Your task to perform on an android device: toggle priority inbox in the gmail app Image 0: 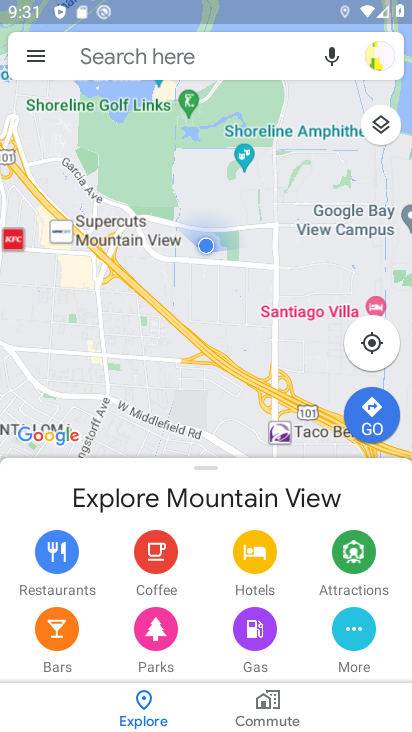
Step 0: press home button
Your task to perform on an android device: toggle priority inbox in the gmail app Image 1: 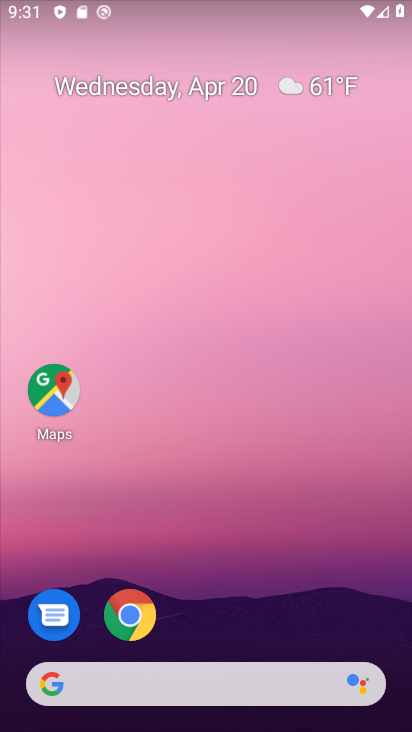
Step 1: drag from (269, 388) to (279, 50)
Your task to perform on an android device: toggle priority inbox in the gmail app Image 2: 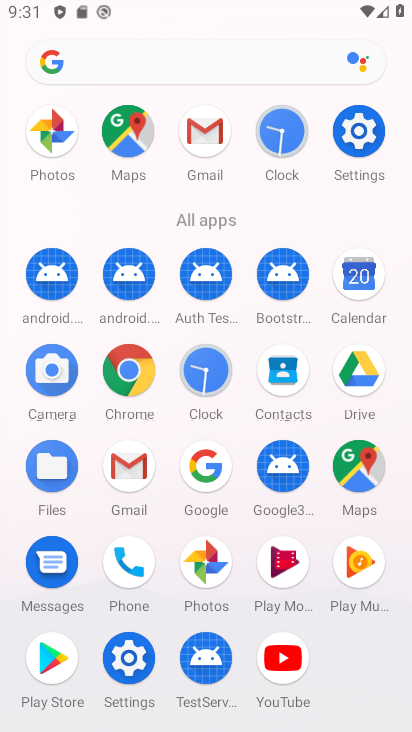
Step 2: click (189, 113)
Your task to perform on an android device: toggle priority inbox in the gmail app Image 3: 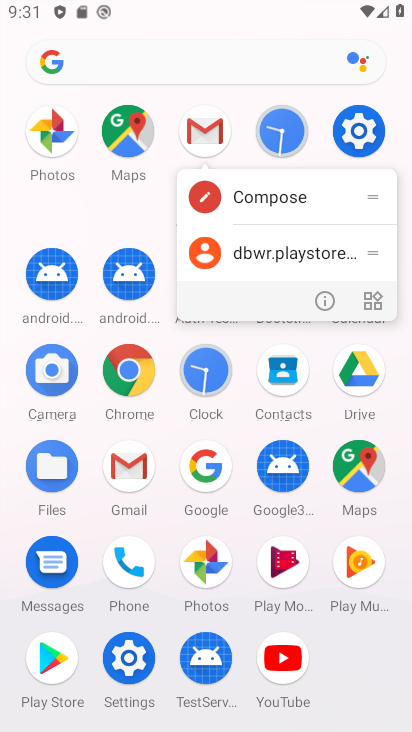
Step 3: click (210, 142)
Your task to perform on an android device: toggle priority inbox in the gmail app Image 4: 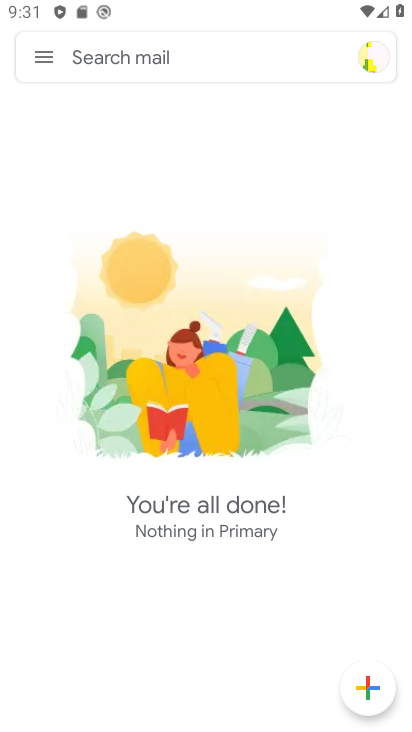
Step 4: click (35, 54)
Your task to perform on an android device: toggle priority inbox in the gmail app Image 5: 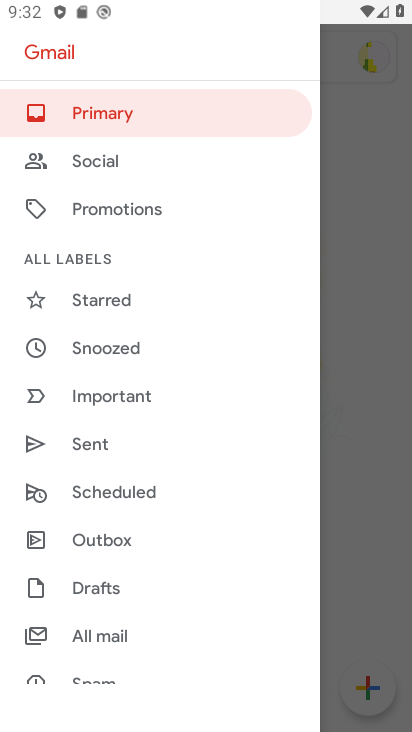
Step 5: drag from (165, 533) to (175, 239)
Your task to perform on an android device: toggle priority inbox in the gmail app Image 6: 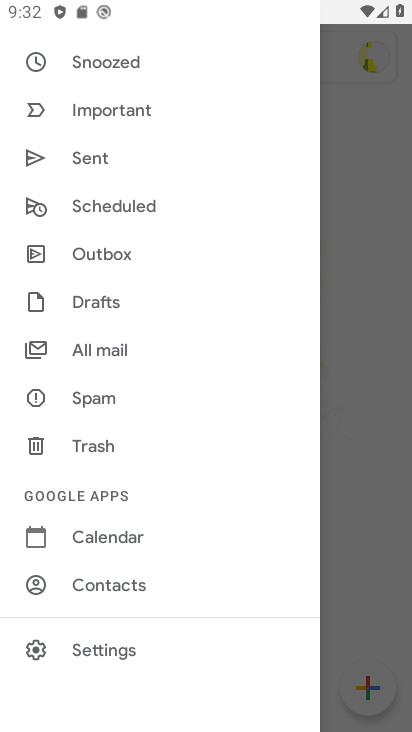
Step 6: click (104, 649)
Your task to perform on an android device: toggle priority inbox in the gmail app Image 7: 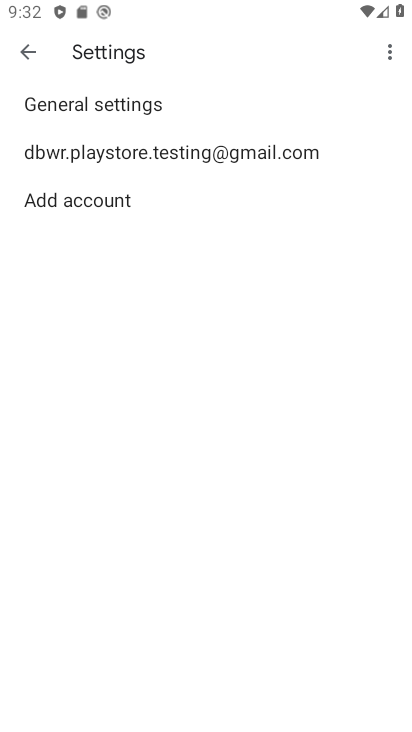
Step 7: click (228, 157)
Your task to perform on an android device: toggle priority inbox in the gmail app Image 8: 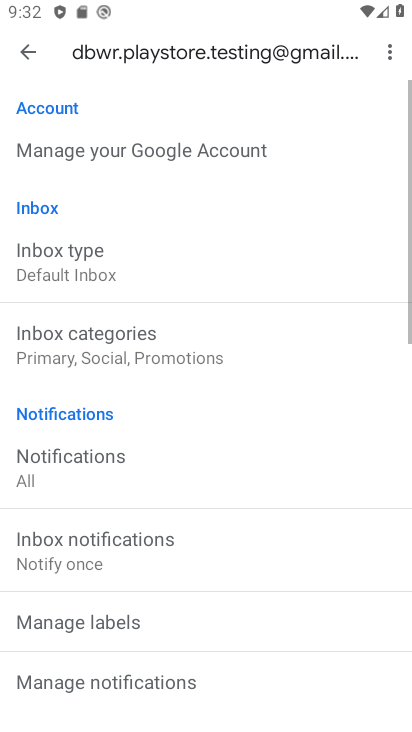
Step 8: click (178, 248)
Your task to perform on an android device: toggle priority inbox in the gmail app Image 9: 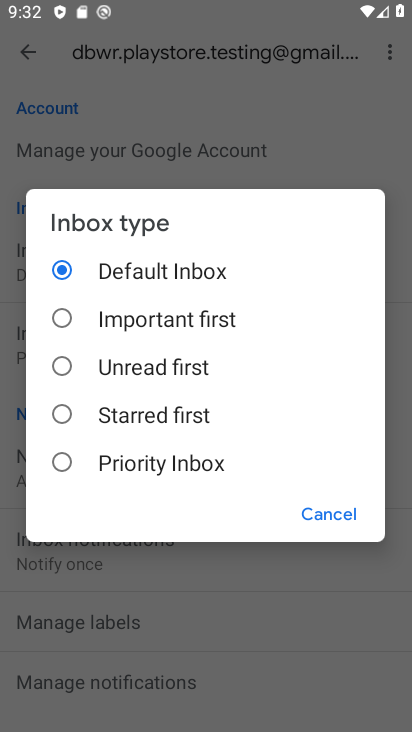
Step 9: click (124, 445)
Your task to perform on an android device: toggle priority inbox in the gmail app Image 10: 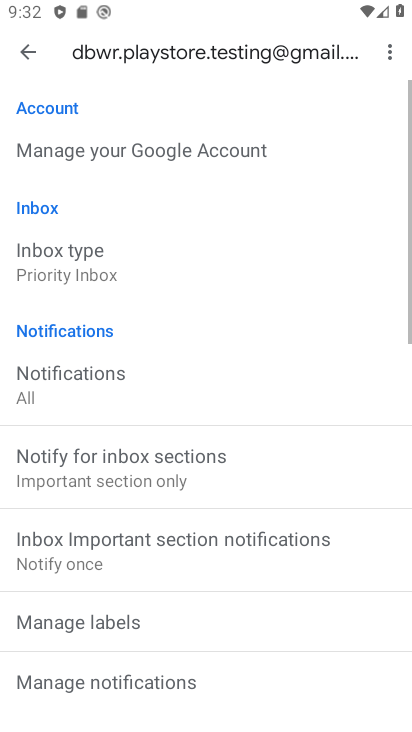
Step 10: task complete